Your task to perform on an android device: Go to ESPN.com Image 0: 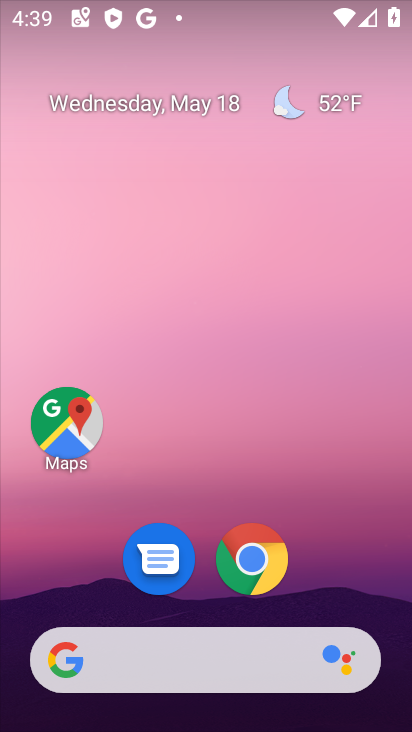
Step 0: click (257, 533)
Your task to perform on an android device: Go to ESPN.com Image 1: 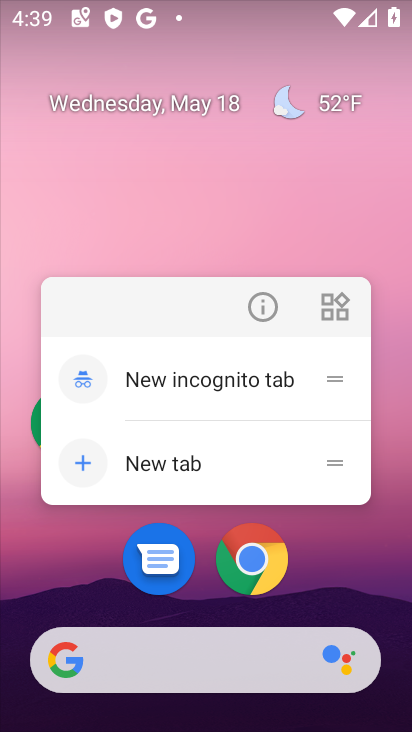
Step 1: click (248, 559)
Your task to perform on an android device: Go to ESPN.com Image 2: 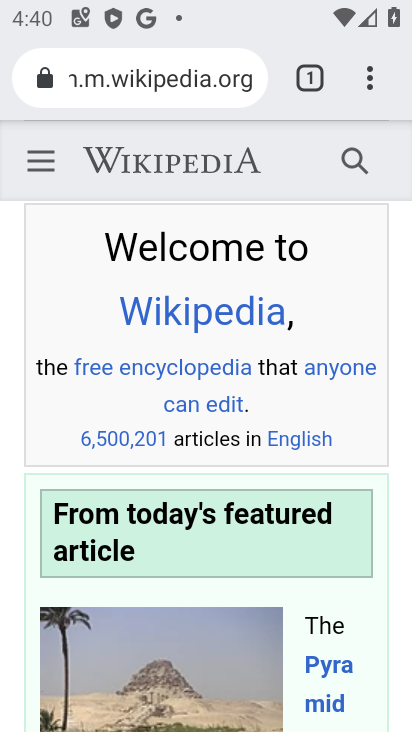
Step 2: click (312, 79)
Your task to perform on an android device: Go to ESPN.com Image 3: 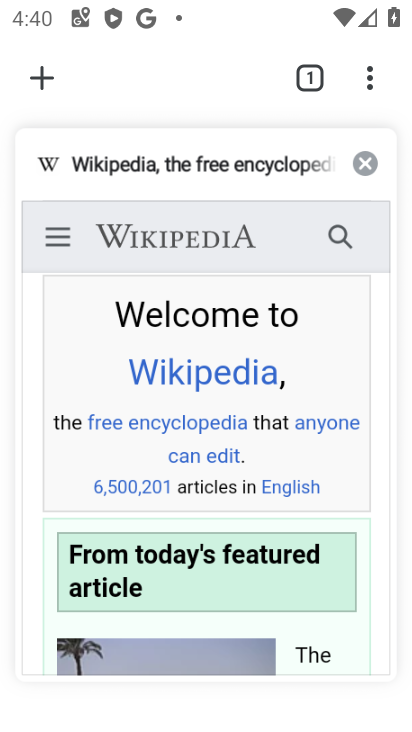
Step 3: click (27, 81)
Your task to perform on an android device: Go to ESPN.com Image 4: 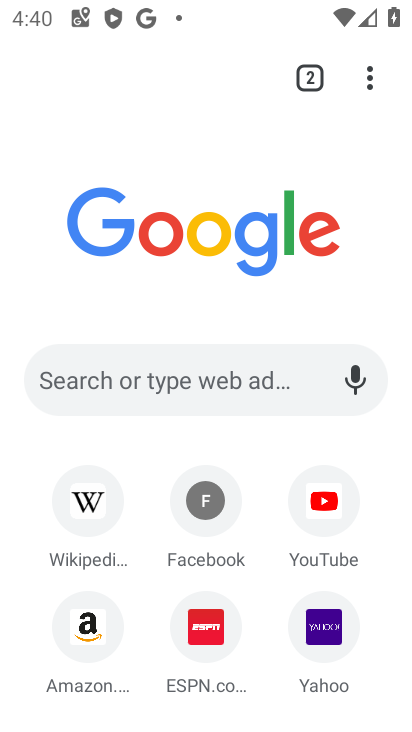
Step 4: click (217, 630)
Your task to perform on an android device: Go to ESPN.com Image 5: 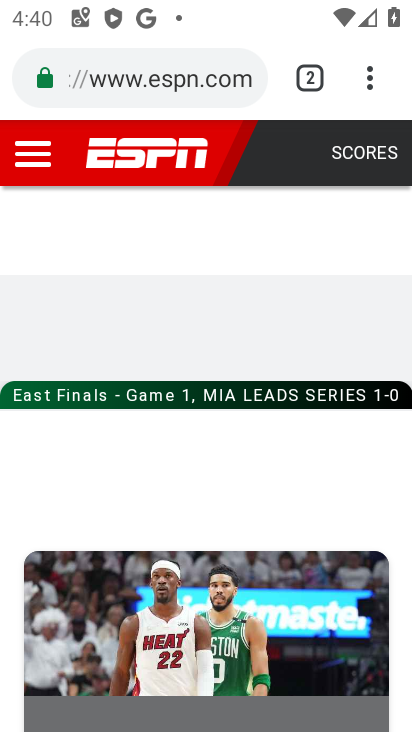
Step 5: task complete